Your task to perform on an android device: Go to calendar. Show me events next week Image 0: 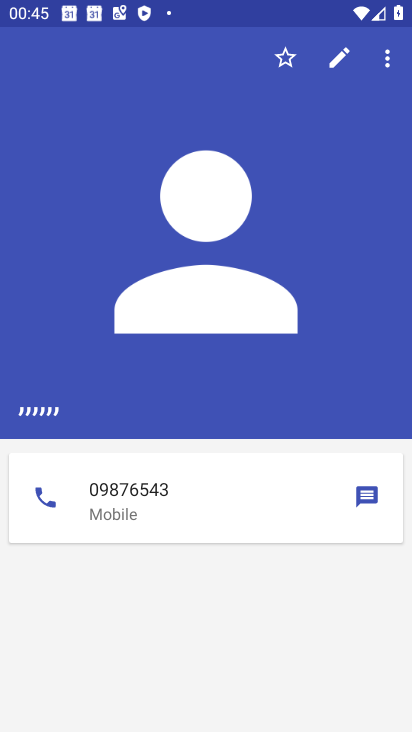
Step 0: press home button
Your task to perform on an android device: Go to calendar. Show me events next week Image 1: 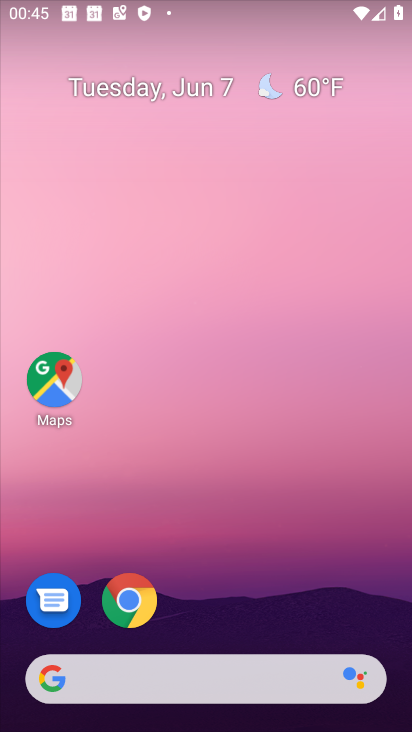
Step 1: drag from (211, 727) to (217, 203)
Your task to perform on an android device: Go to calendar. Show me events next week Image 2: 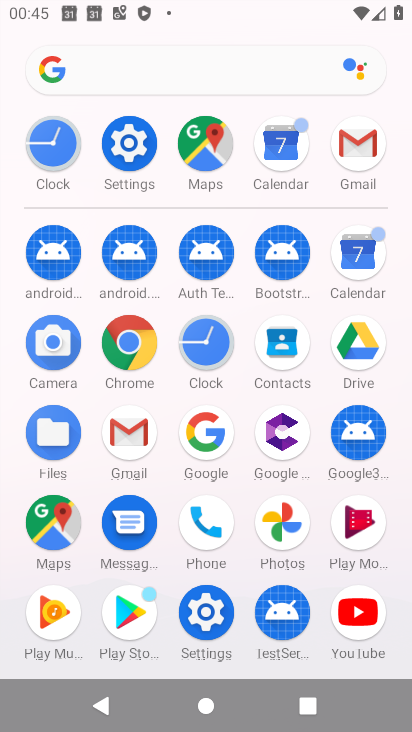
Step 2: click (355, 256)
Your task to perform on an android device: Go to calendar. Show me events next week Image 3: 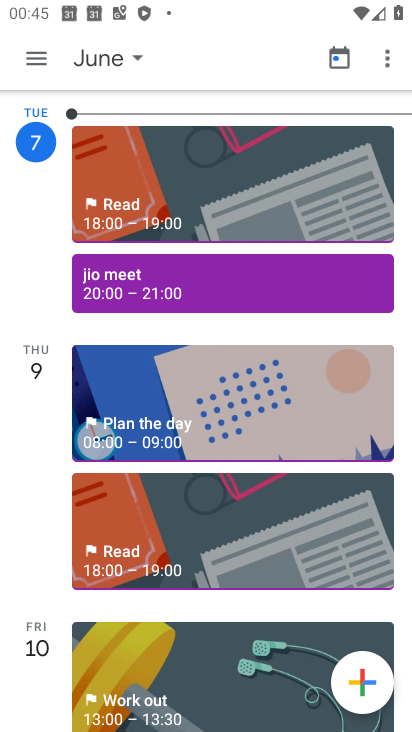
Step 3: click (128, 53)
Your task to perform on an android device: Go to calendar. Show me events next week Image 4: 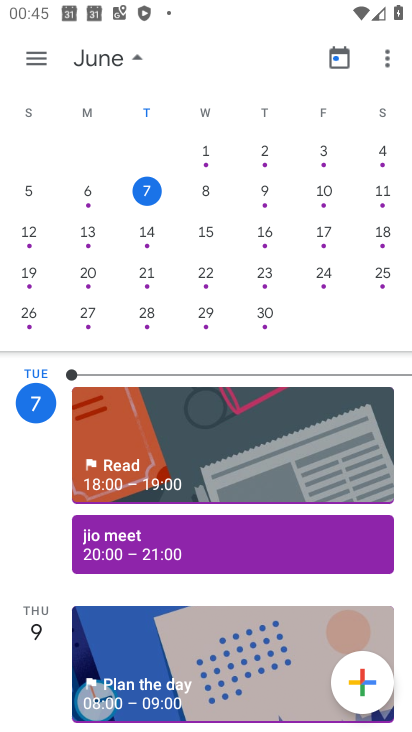
Step 4: click (87, 229)
Your task to perform on an android device: Go to calendar. Show me events next week Image 5: 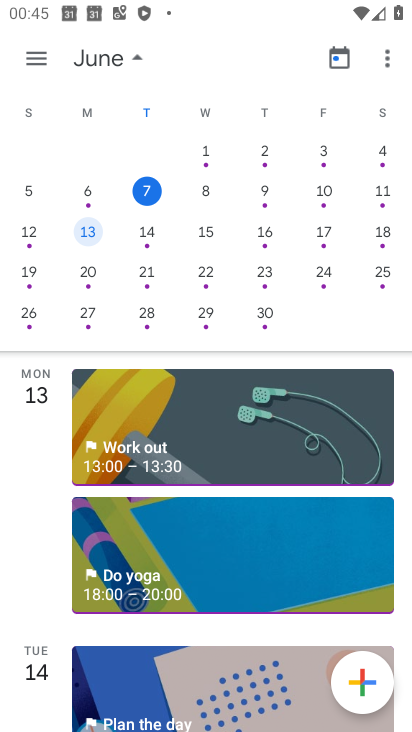
Step 5: click (88, 228)
Your task to perform on an android device: Go to calendar. Show me events next week Image 6: 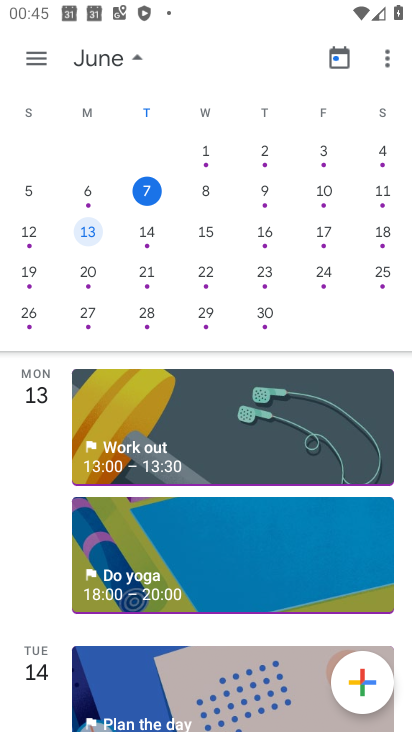
Step 6: click (88, 228)
Your task to perform on an android device: Go to calendar. Show me events next week Image 7: 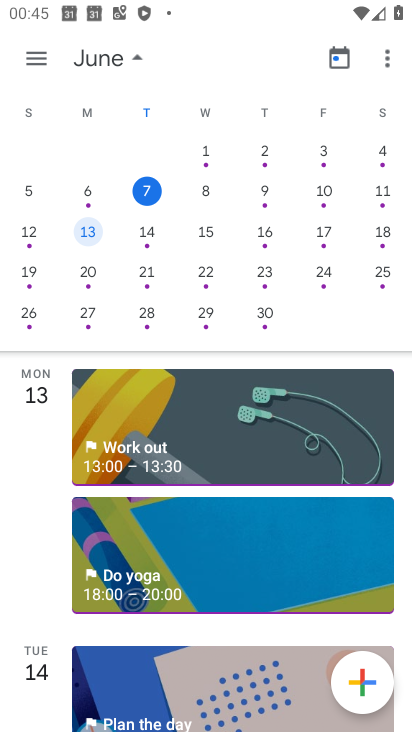
Step 7: click (88, 228)
Your task to perform on an android device: Go to calendar. Show me events next week Image 8: 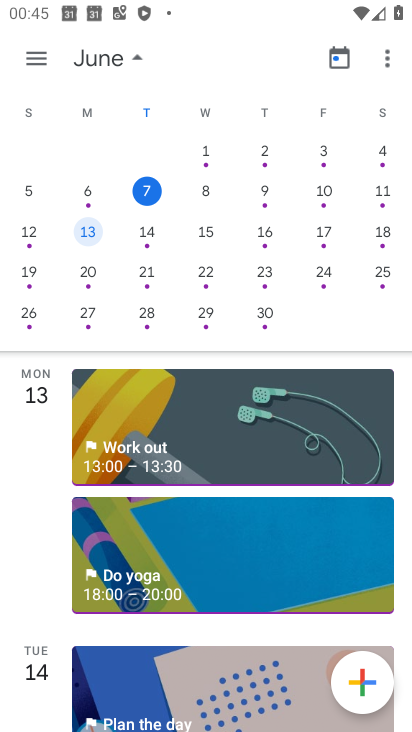
Step 8: click (139, 56)
Your task to perform on an android device: Go to calendar. Show me events next week Image 9: 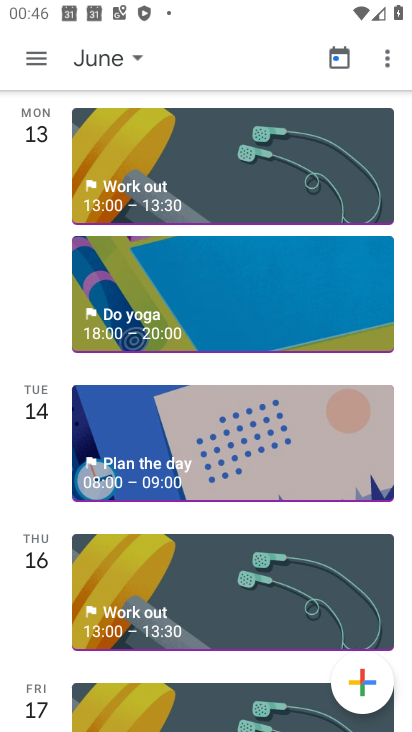
Step 9: task complete